Your task to perform on an android device: What's the weather going to be tomorrow? Image 0: 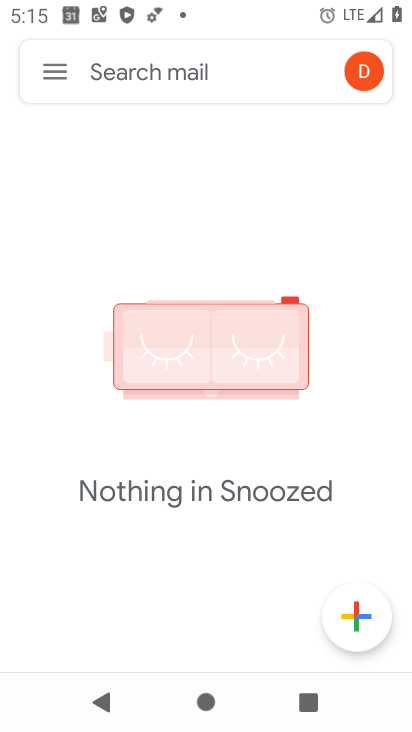
Step 0: press home button
Your task to perform on an android device: What's the weather going to be tomorrow? Image 1: 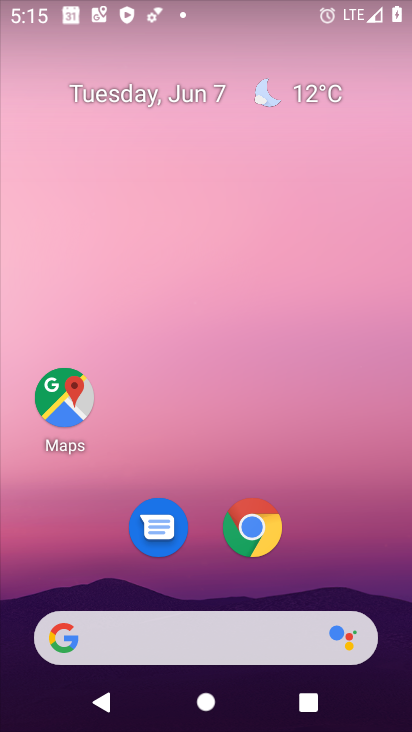
Step 1: drag from (285, 570) to (168, 8)
Your task to perform on an android device: What's the weather going to be tomorrow? Image 2: 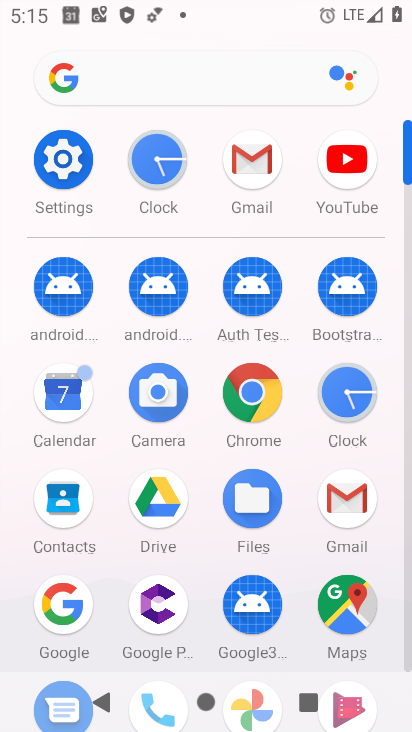
Step 2: click (57, 602)
Your task to perform on an android device: What's the weather going to be tomorrow? Image 3: 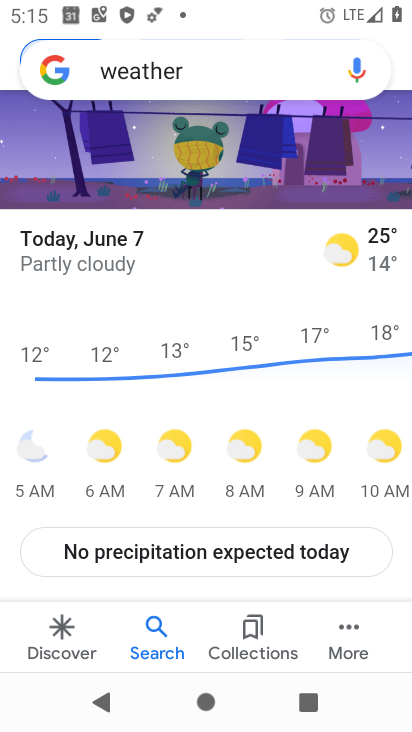
Step 3: drag from (235, 157) to (189, 414)
Your task to perform on an android device: What's the weather going to be tomorrow? Image 4: 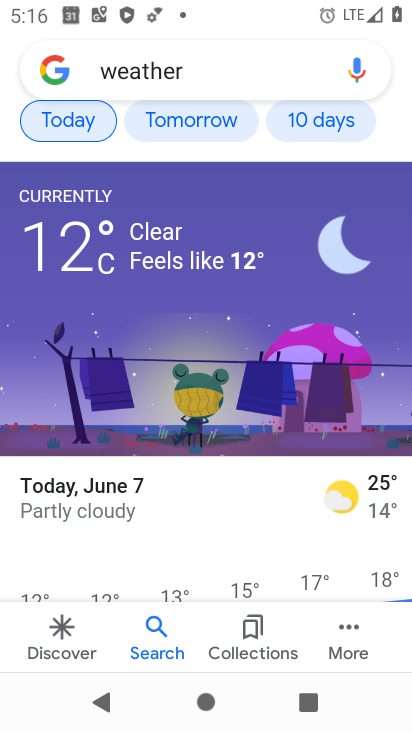
Step 4: click (193, 121)
Your task to perform on an android device: What's the weather going to be tomorrow? Image 5: 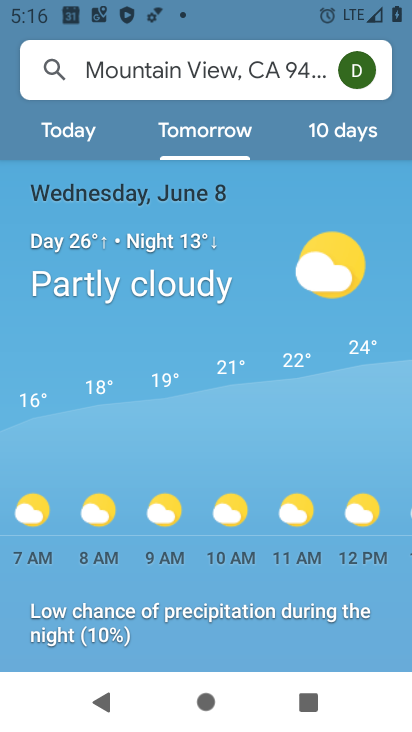
Step 5: task complete